Your task to perform on an android device: Open notification settings Image 0: 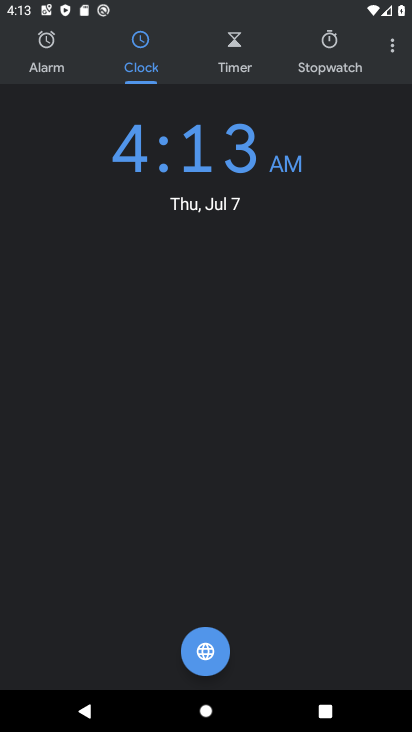
Step 0: press home button
Your task to perform on an android device: Open notification settings Image 1: 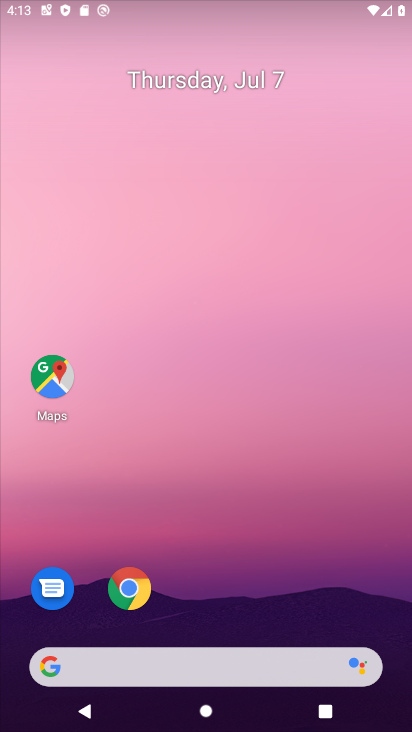
Step 1: drag from (280, 638) to (275, 39)
Your task to perform on an android device: Open notification settings Image 2: 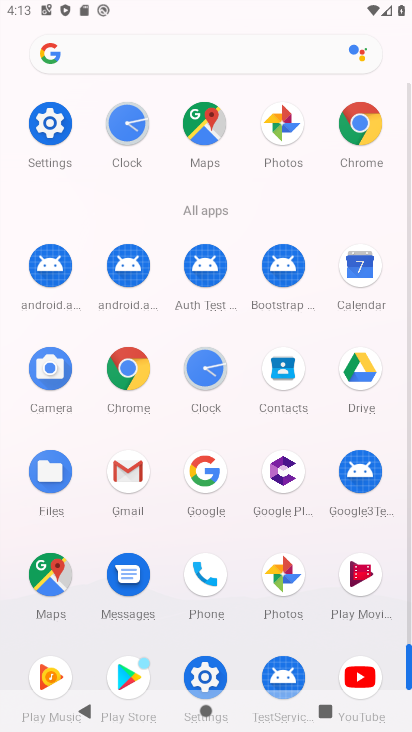
Step 2: click (50, 120)
Your task to perform on an android device: Open notification settings Image 3: 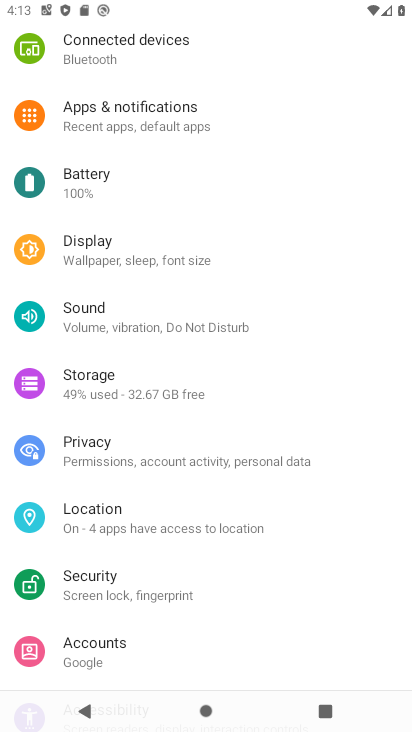
Step 3: click (160, 129)
Your task to perform on an android device: Open notification settings Image 4: 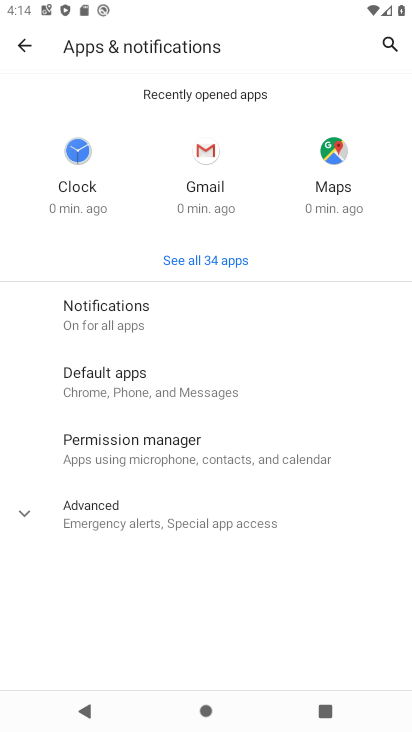
Step 4: task complete